Your task to perform on an android device: Do I have any events this weekend? Image 0: 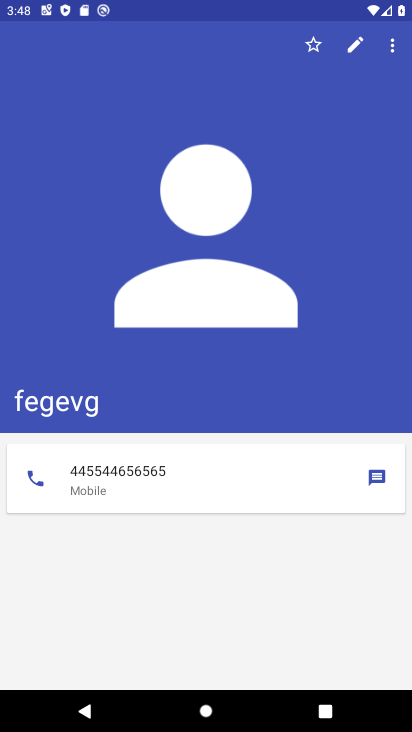
Step 0: press home button
Your task to perform on an android device: Do I have any events this weekend? Image 1: 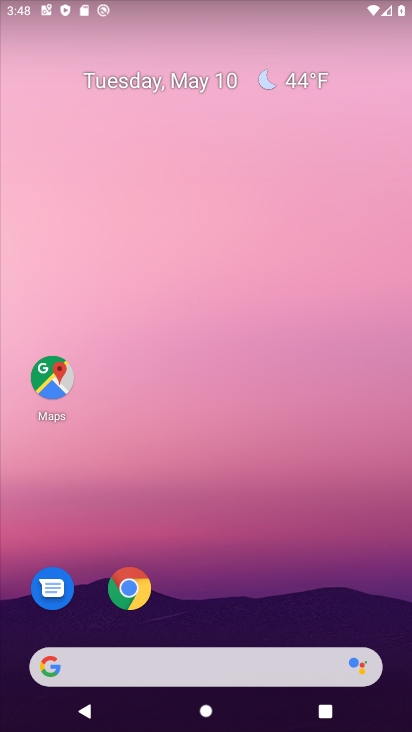
Step 1: drag from (296, 573) to (228, 98)
Your task to perform on an android device: Do I have any events this weekend? Image 2: 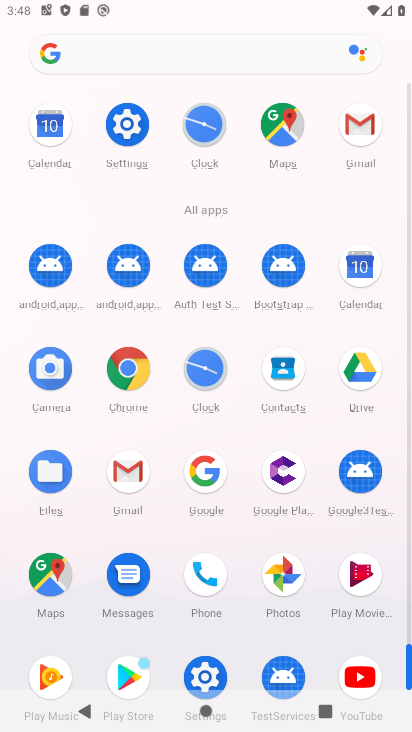
Step 2: click (367, 255)
Your task to perform on an android device: Do I have any events this weekend? Image 3: 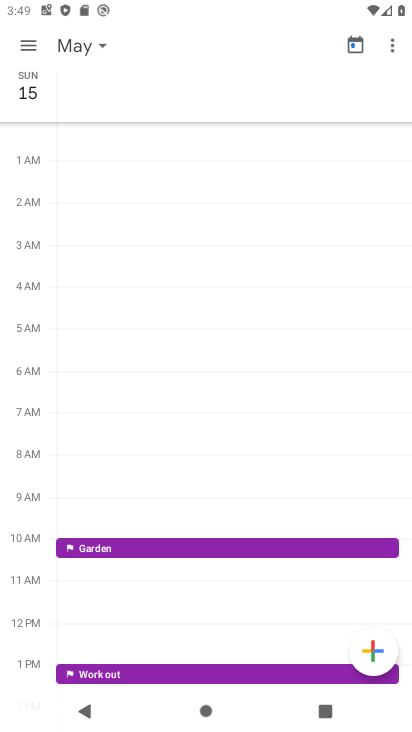
Step 3: click (35, 41)
Your task to perform on an android device: Do I have any events this weekend? Image 4: 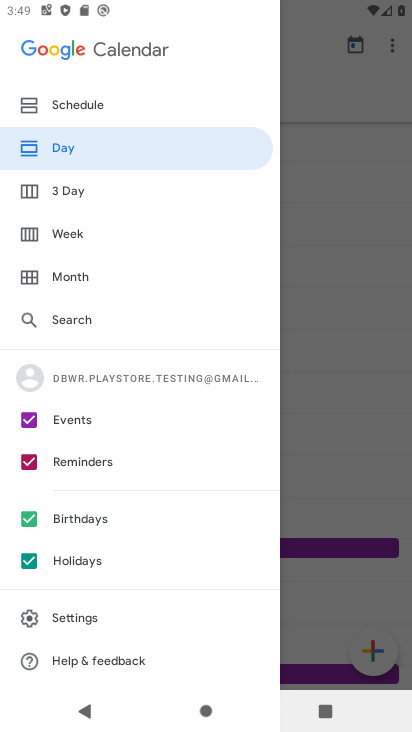
Step 4: click (83, 235)
Your task to perform on an android device: Do I have any events this weekend? Image 5: 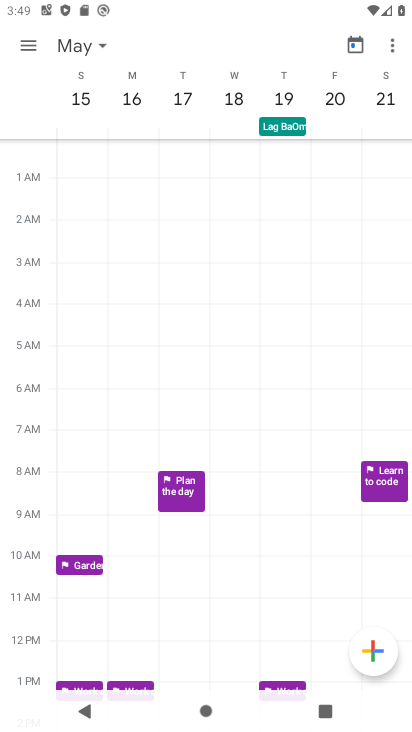
Step 5: click (94, 45)
Your task to perform on an android device: Do I have any events this weekend? Image 6: 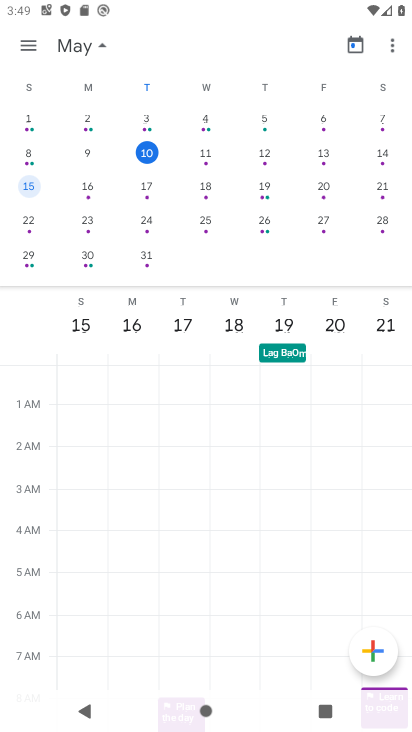
Step 6: click (213, 154)
Your task to perform on an android device: Do I have any events this weekend? Image 7: 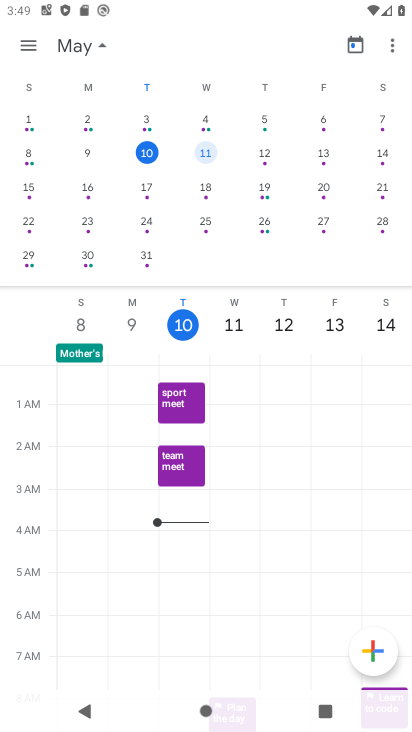
Step 7: click (326, 147)
Your task to perform on an android device: Do I have any events this weekend? Image 8: 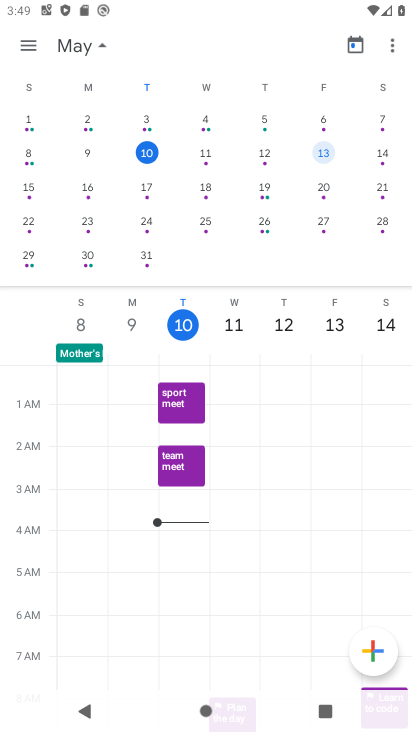
Step 8: click (33, 44)
Your task to perform on an android device: Do I have any events this weekend? Image 9: 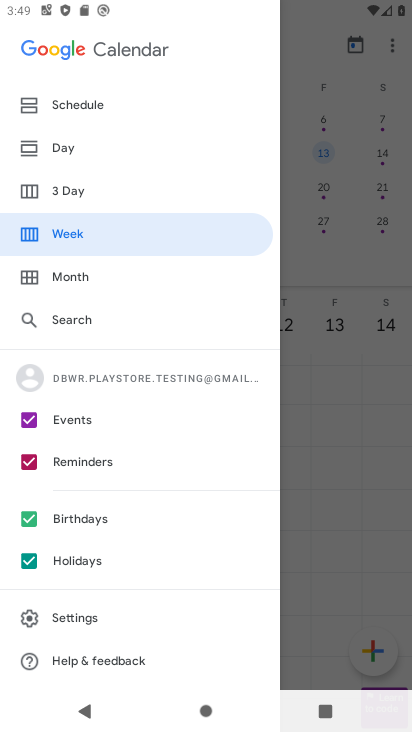
Step 9: click (99, 191)
Your task to perform on an android device: Do I have any events this weekend? Image 10: 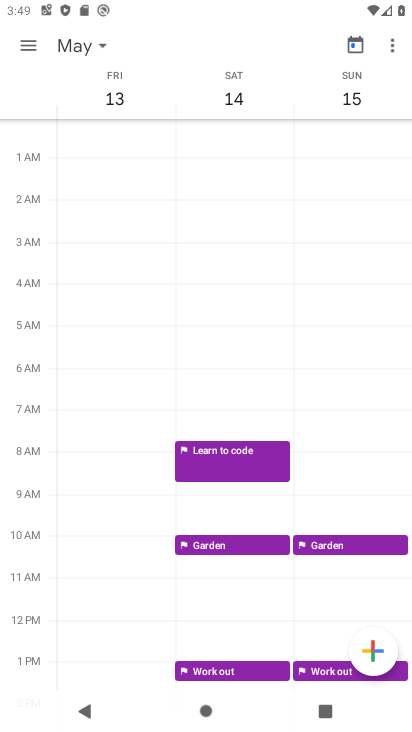
Step 10: task complete